Your task to perform on an android device: Go to Wikipedia Image 0: 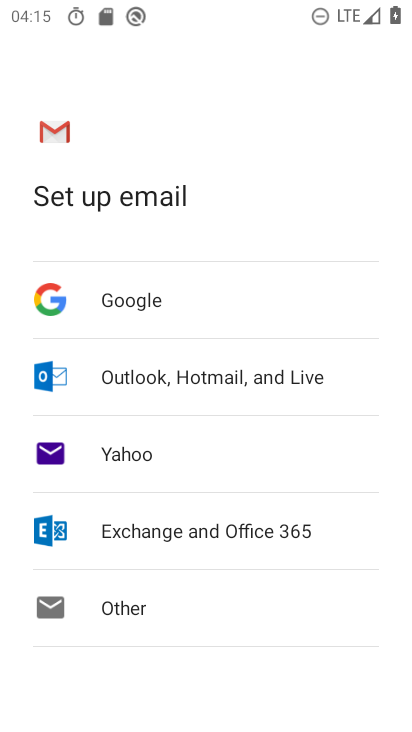
Step 0: press home button
Your task to perform on an android device: Go to Wikipedia Image 1: 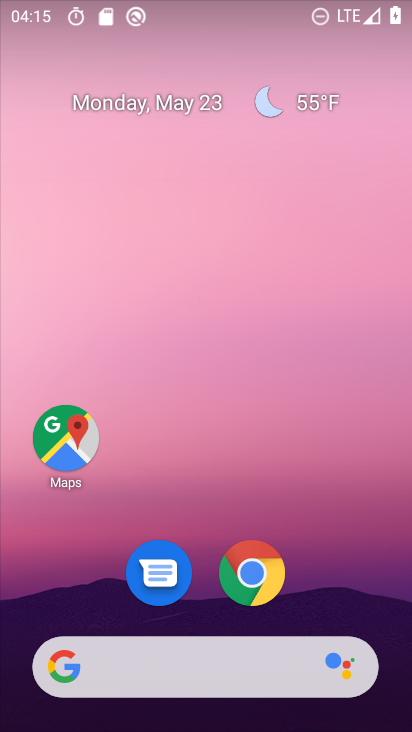
Step 1: click (250, 589)
Your task to perform on an android device: Go to Wikipedia Image 2: 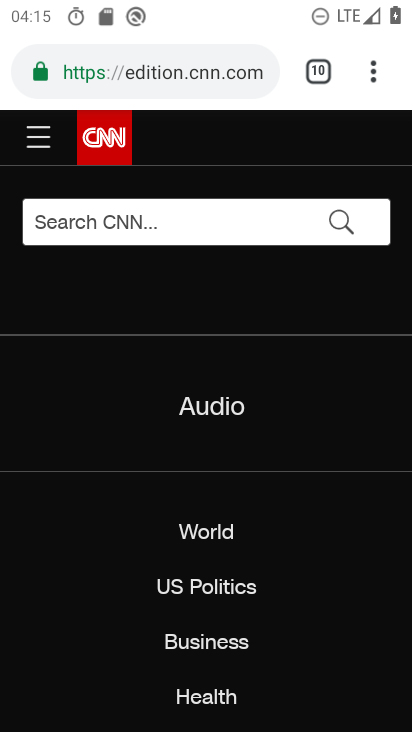
Step 2: click (314, 64)
Your task to perform on an android device: Go to Wikipedia Image 3: 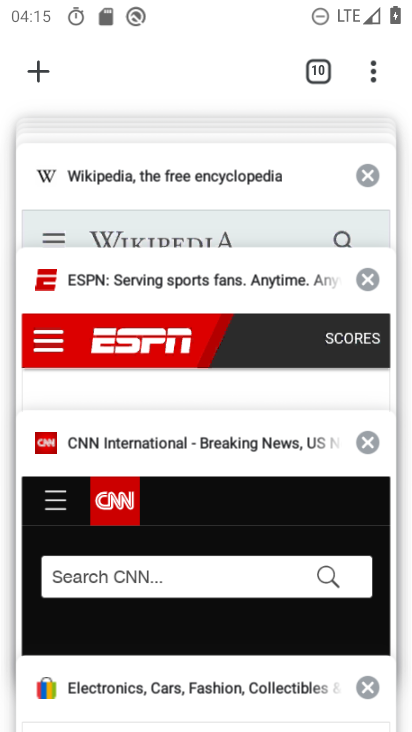
Step 3: click (203, 198)
Your task to perform on an android device: Go to Wikipedia Image 4: 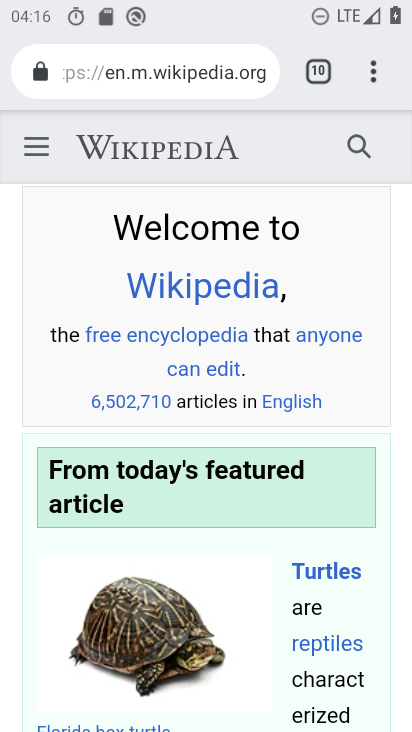
Step 4: task complete